Your task to perform on an android device: Open the phone app and click the voicemail tab. Image 0: 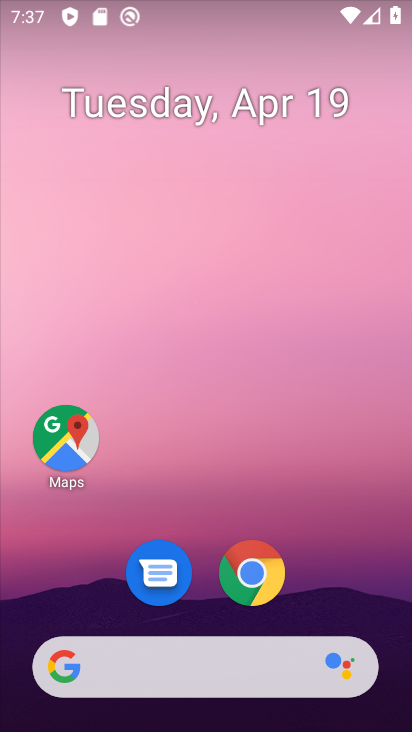
Step 0: click (322, 29)
Your task to perform on an android device: Open the phone app and click the voicemail tab. Image 1: 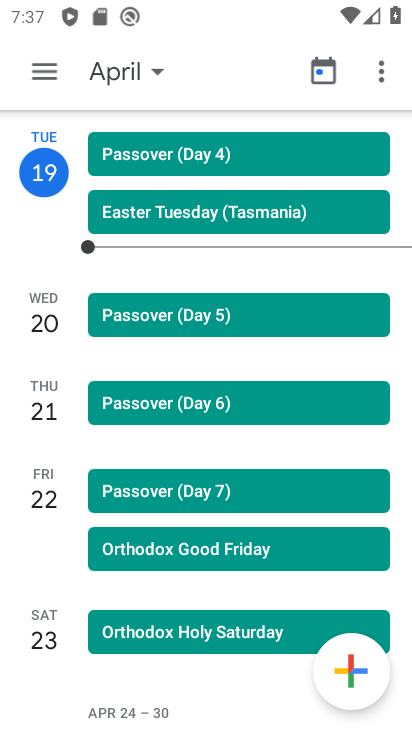
Step 1: press home button
Your task to perform on an android device: Open the phone app and click the voicemail tab. Image 2: 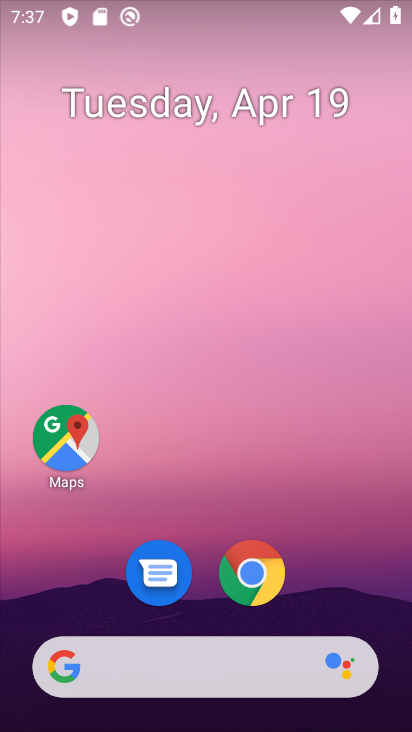
Step 2: drag from (326, 472) to (282, 77)
Your task to perform on an android device: Open the phone app and click the voicemail tab. Image 3: 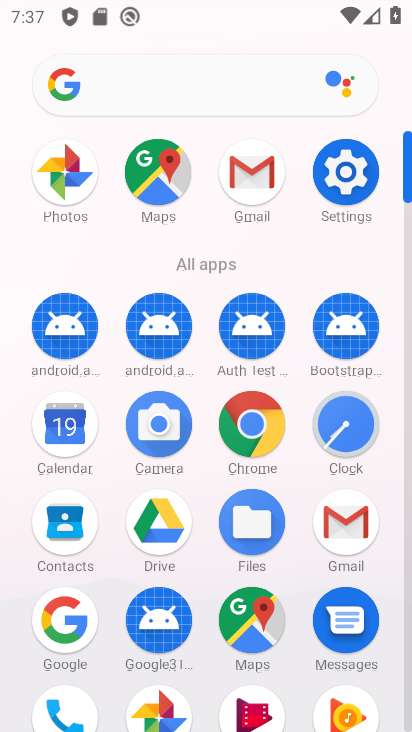
Step 3: drag from (299, 586) to (291, 269)
Your task to perform on an android device: Open the phone app and click the voicemail tab. Image 4: 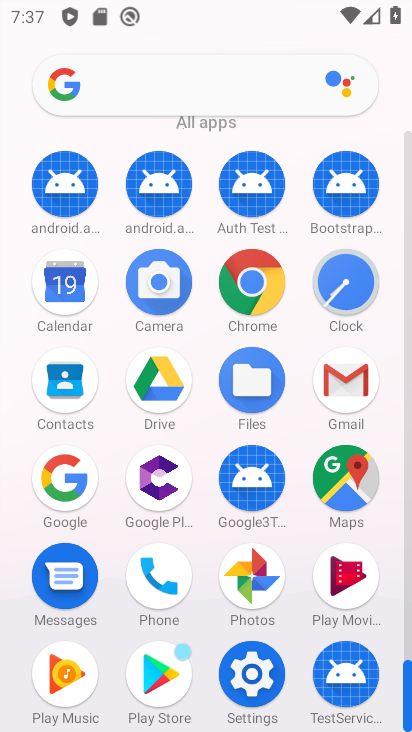
Step 4: click (148, 572)
Your task to perform on an android device: Open the phone app and click the voicemail tab. Image 5: 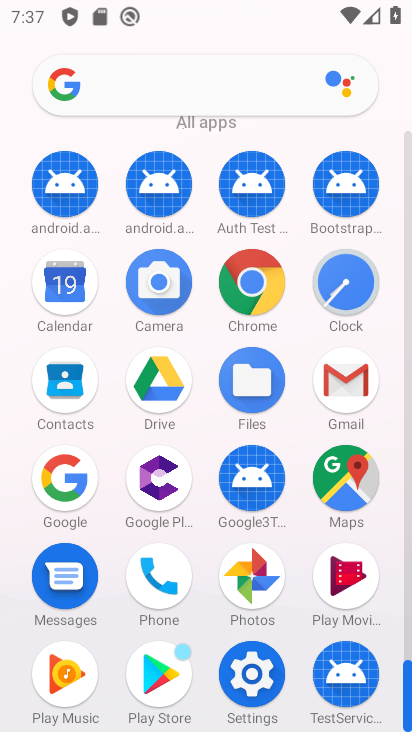
Step 5: click (146, 572)
Your task to perform on an android device: Open the phone app and click the voicemail tab. Image 6: 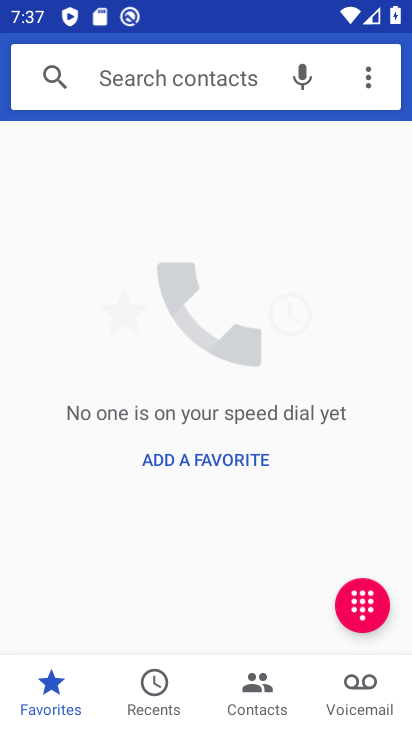
Step 6: click (352, 705)
Your task to perform on an android device: Open the phone app and click the voicemail tab. Image 7: 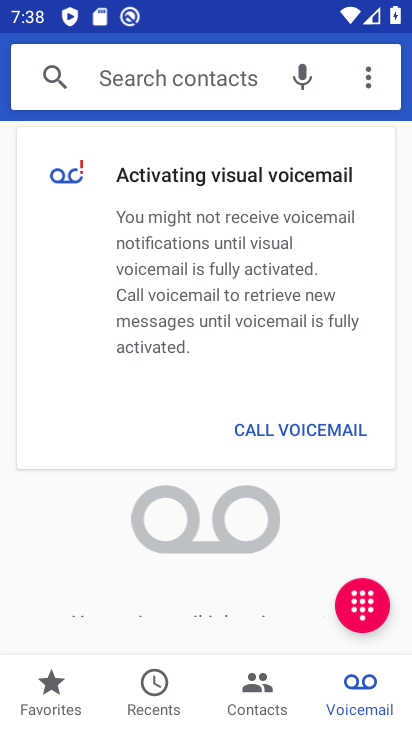
Step 7: task complete